Your task to perform on an android device: turn off data saver in the chrome app Image 0: 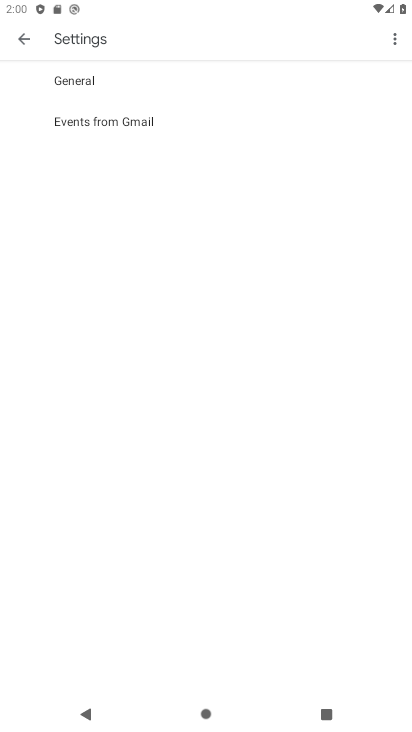
Step 0: press back button
Your task to perform on an android device: turn off data saver in the chrome app Image 1: 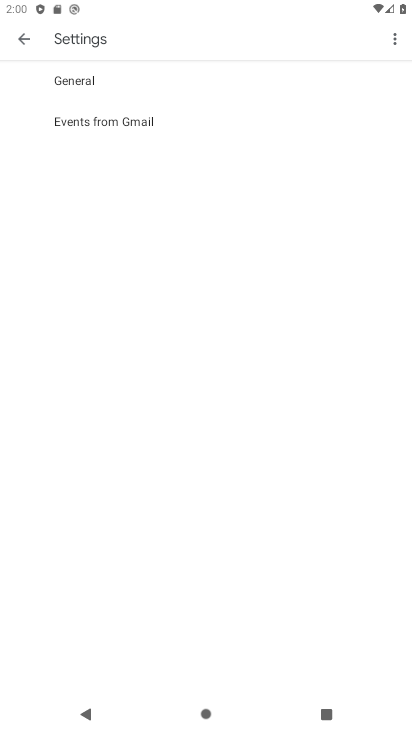
Step 1: press back button
Your task to perform on an android device: turn off data saver in the chrome app Image 2: 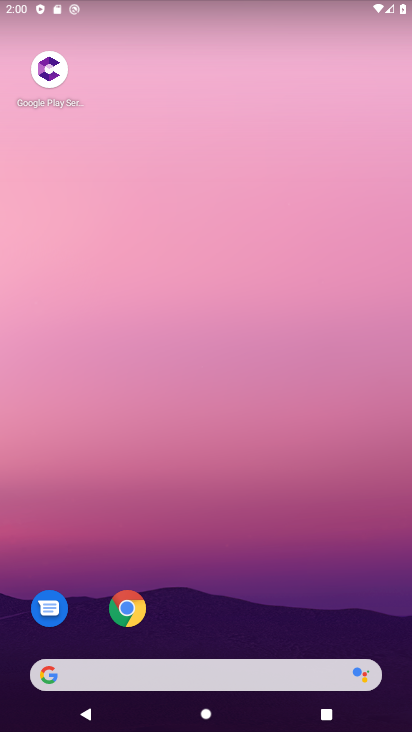
Step 2: drag from (252, 702) to (166, 61)
Your task to perform on an android device: turn off data saver in the chrome app Image 3: 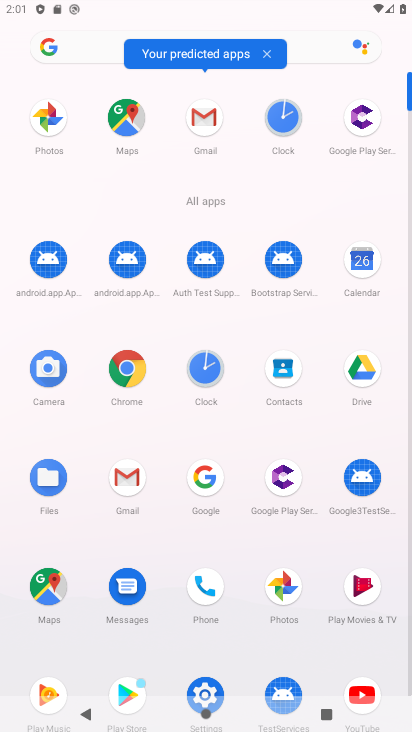
Step 3: click (128, 366)
Your task to perform on an android device: turn off data saver in the chrome app Image 4: 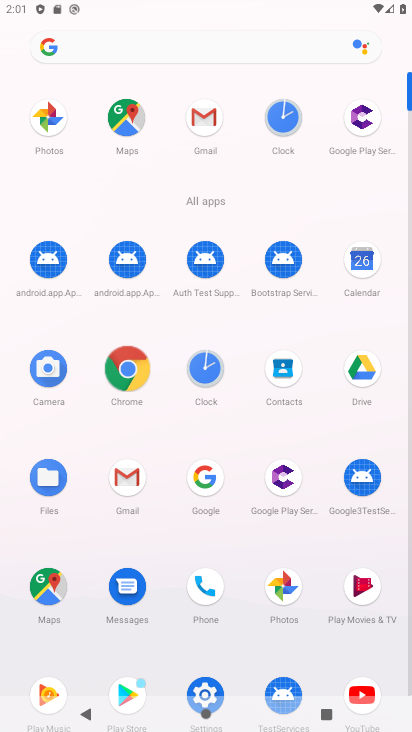
Step 4: click (122, 371)
Your task to perform on an android device: turn off data saver in the chrome app Image 5: 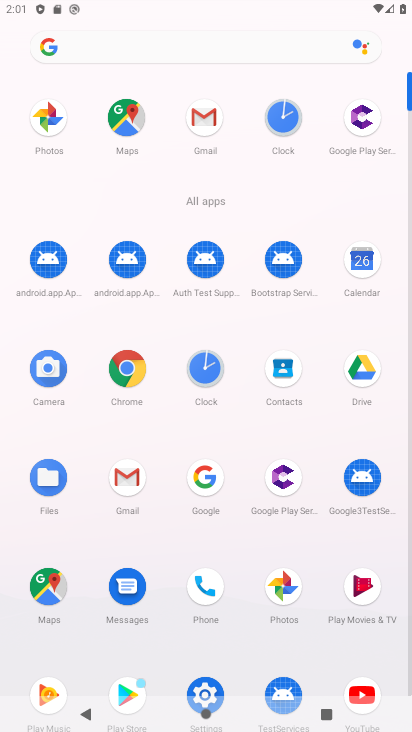
Step 5: click (128, 374)
Your task to perform on an android device: turn off data saver in the chrome app Image 6: 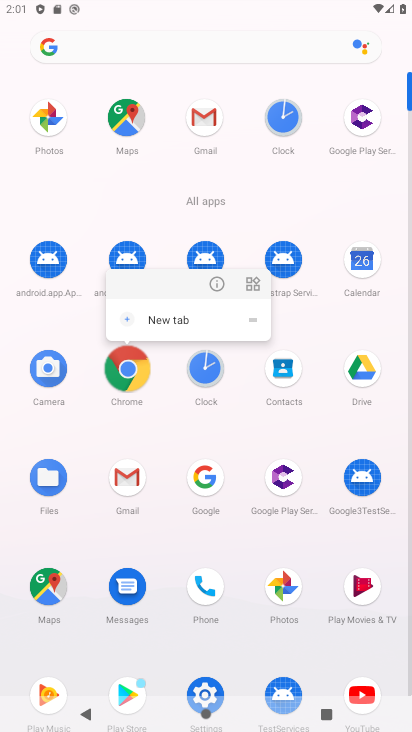
Step 6: click (131, 365)
Your task to perform on an android device: turn off data saver in the chrome app Image 7: 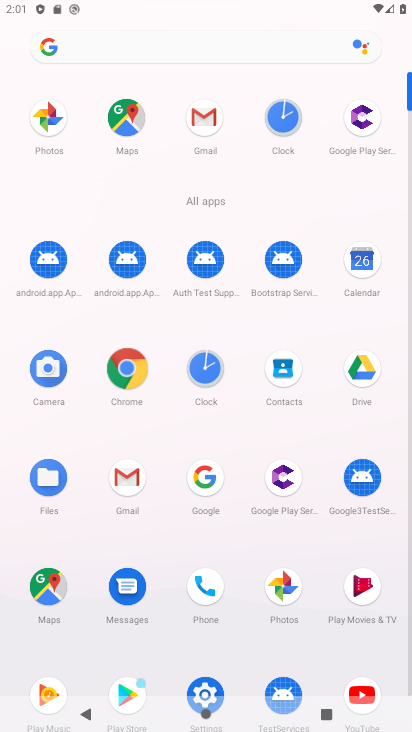
Step 7: click (135, 369)
Your task to perform on an android device: turn off data saver in the chrome app Image 8: 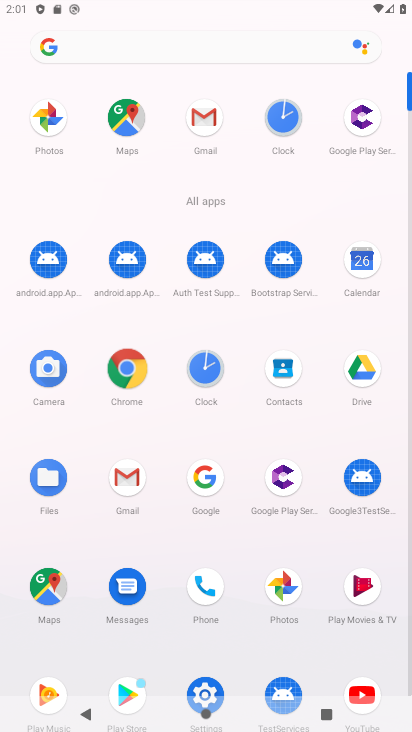
Step 8: click (135, 369)
Your task to perform on an android device: turn off data saver in the chrome app Image 9: 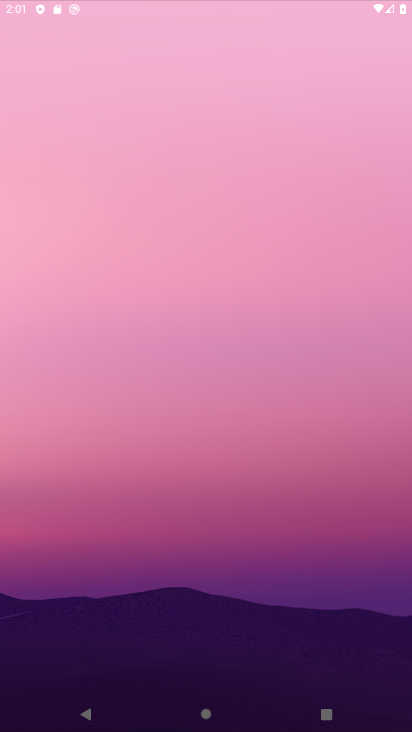
Step 9: click (136, 369)
Your task to perform on an android device: turn off data saver in the chrome app Image 10: 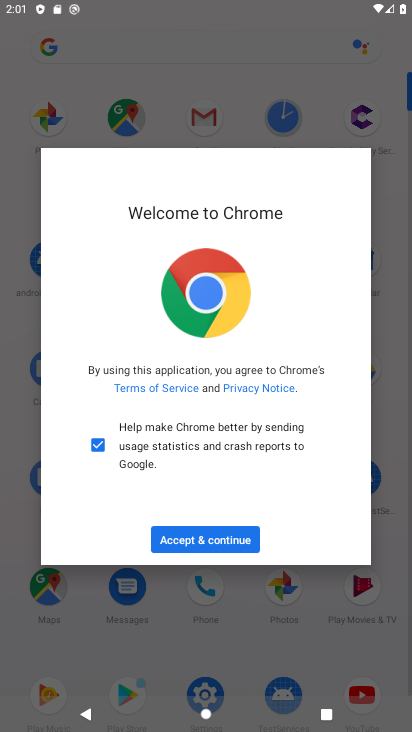
Step 10: click (224, 540)
Your task to perform on an android device: turn off data saver in the chrome app Image 11: 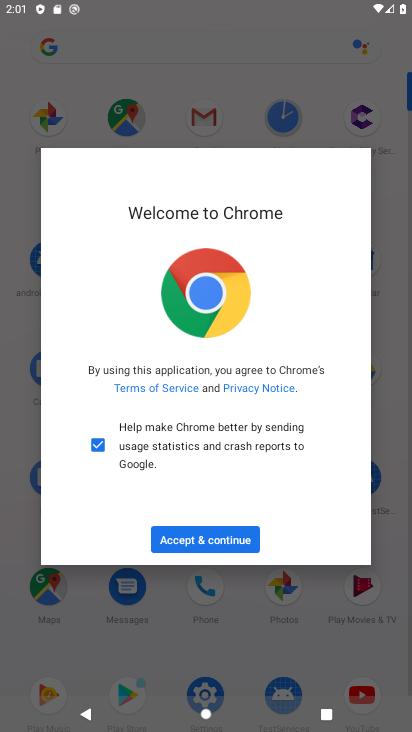
Step 11: click (224, 540)
Your task to perform on an android device: turn off data saver in the chrome app Image 12: 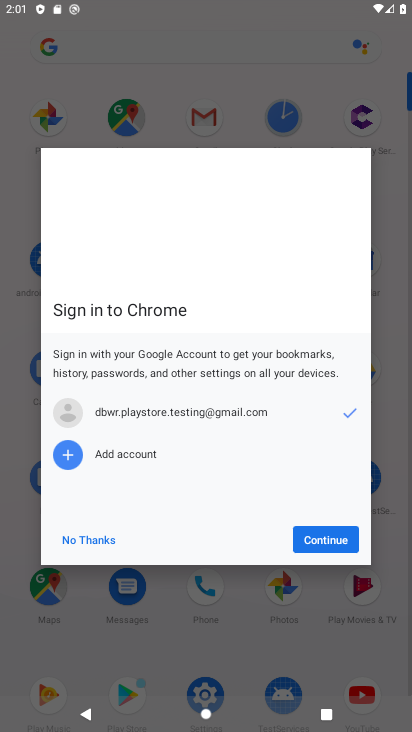
Step 12: click (225, 540)
Your task to perform on an android device: turn off data saver in the chrome app Image 13: 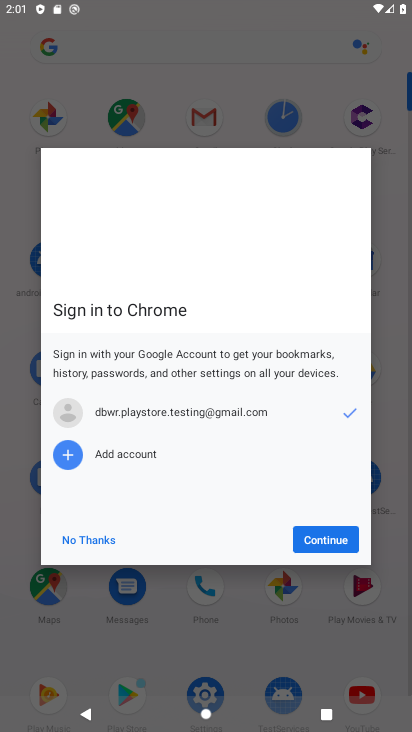
Step 13: click (225, 540)
Your task to perform on an android device: turn off data saver in the chrome app Image 14: 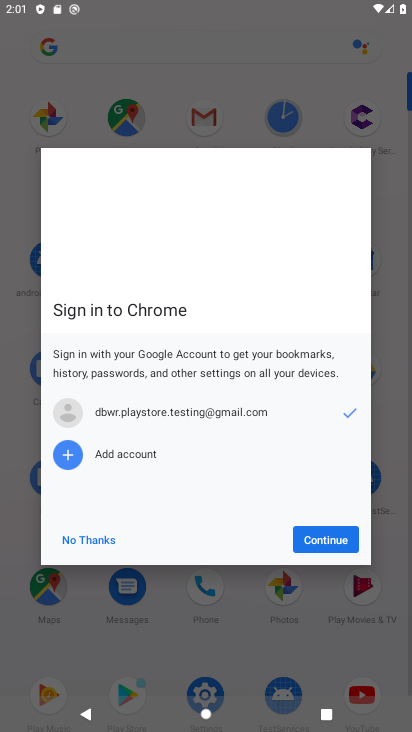
Step 14: click (333, 535)
Your task to perform on an android device: turn off data saver in the chrome app Image 15: 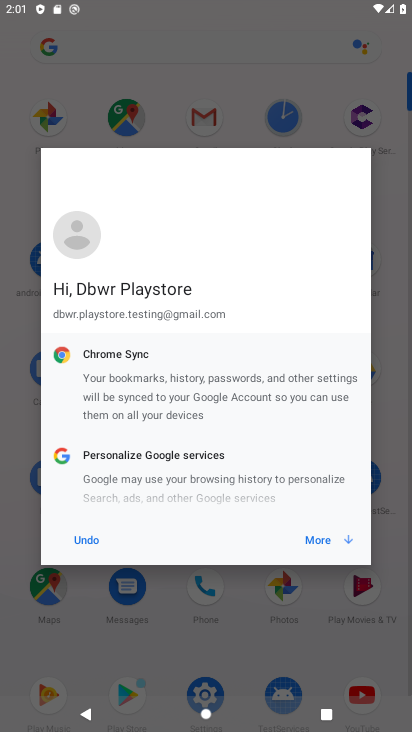
Step 15: click (334, 536)
Your task to perform on an android device: turn off data saver in the chrome app Image 16: 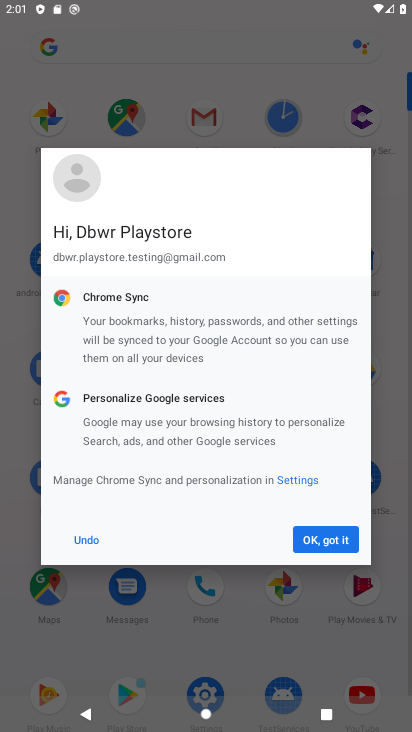
Step 16: click (331, 532)
Your task to perform on an android device: turn off data saver in the chrome app Image 17: 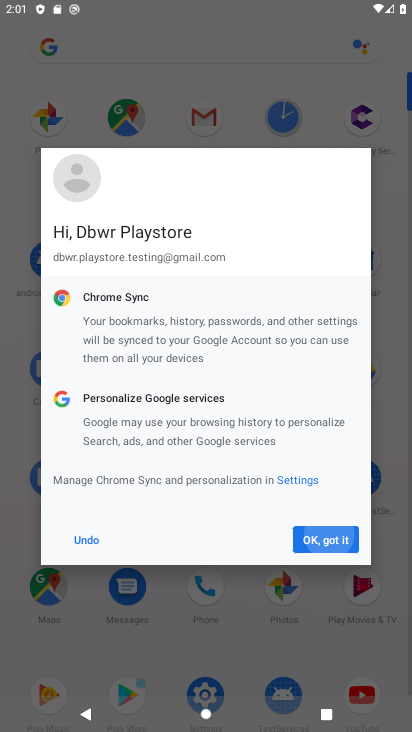
Step 17: click (325, 530)
Your task to perform on an android device: turn off data saver in the chrome app Image 18: 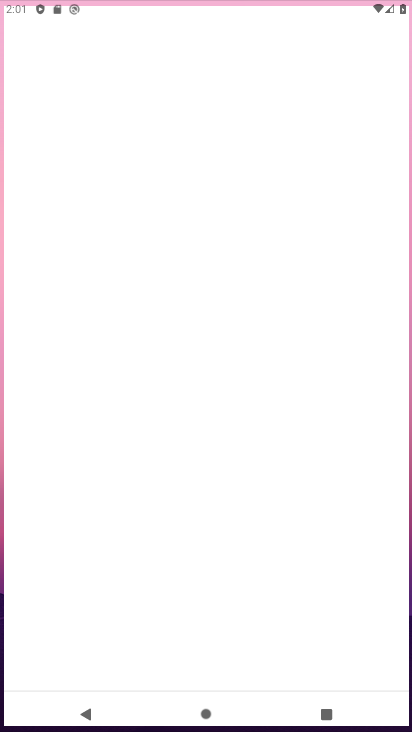
Step 18: click (325, 537)
Your task to perform on an android device: turn off data saver in the chrome app Image 19: 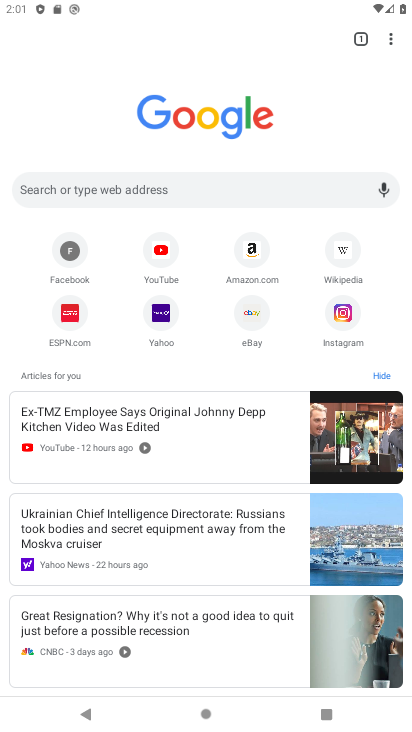
Step 19: drag from (389, 44) to (249, 361)
Your task to perform on an android device: turn off data saver in the chrome app Image 20: 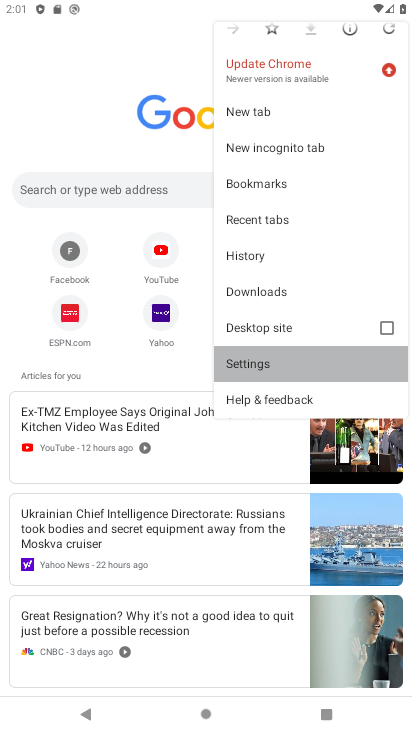
Step 20: click (254, 362)
Your task to perform on an android device: turn off data saver in the chrome app Image 21: 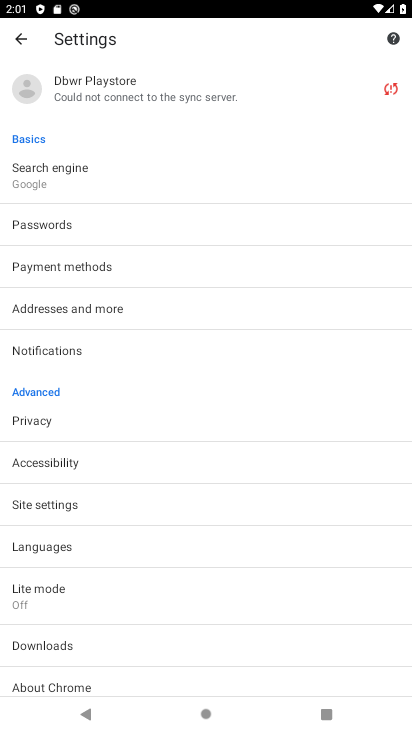
Step 21: click (37, 586)
Your task to perform on an android device: turn off data saver in the chrome app Image 22: 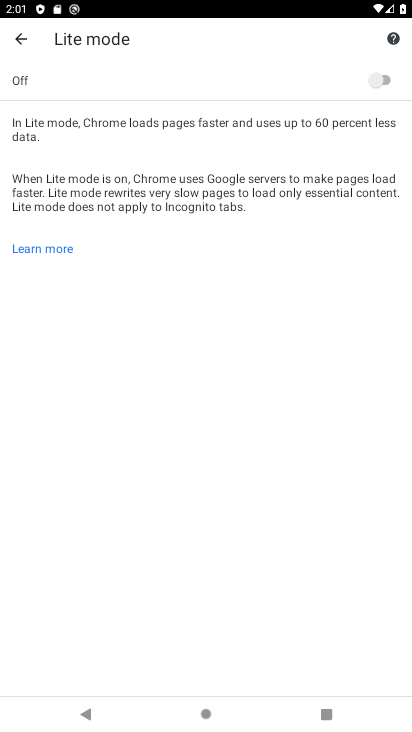
Step 22: task complete